Your task to perform on an android device: Open the web browser Image 0: 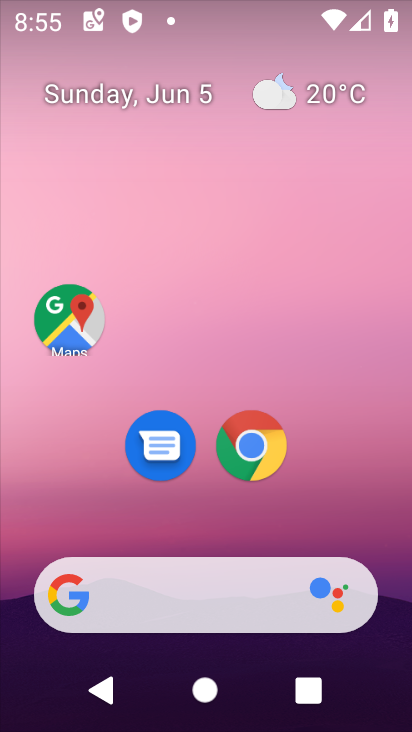
Step 0: drag from (293, 620) to (329, 42)
Your task to perform on an android device: Open the web browser Image 1: 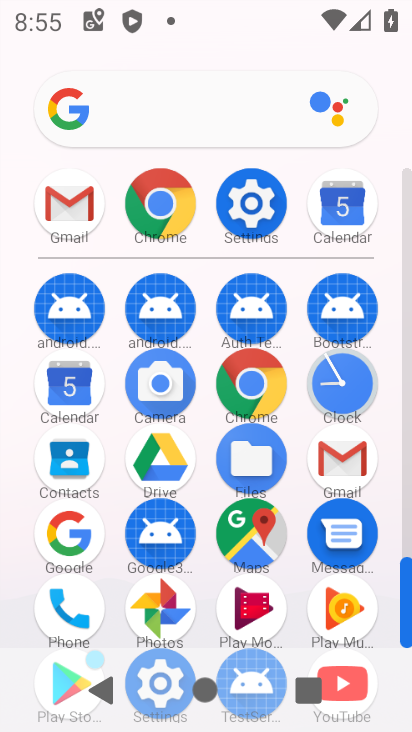
Step 1: click (250, 373)
Your task to perform on an android device: Open the web browser Image 2: 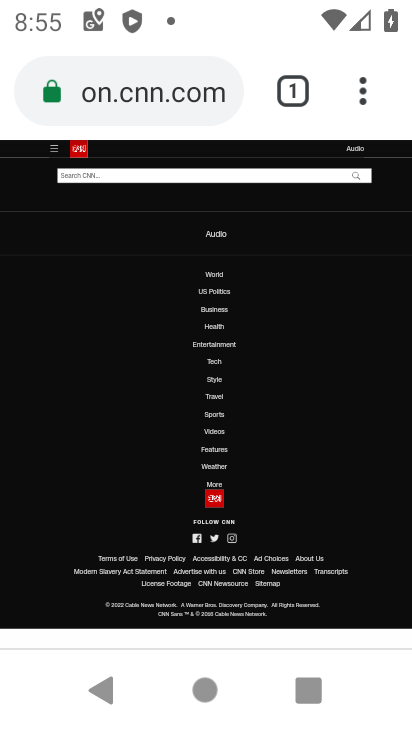
Step 2: task complete